Your task to perform on an android device: turn on airplane mode Image 0: 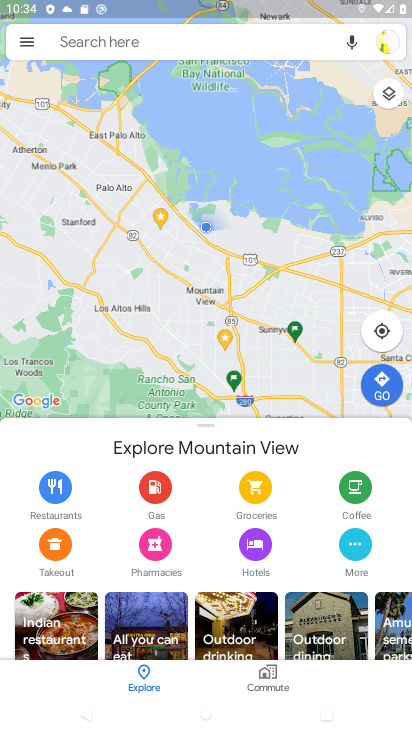
Step 0: press home button
Your task to perform on an android device: turn on airplane mode Image 1: 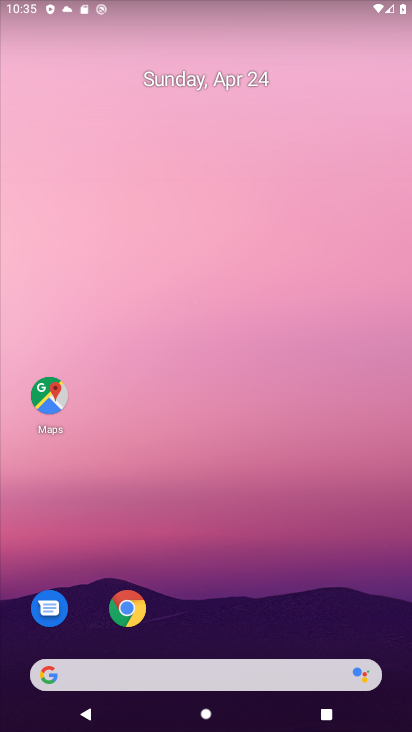
Step 1: drag from (204, 14) to (327, 725)
Your task to perform on an android device: turn on airplane mode Image 2: 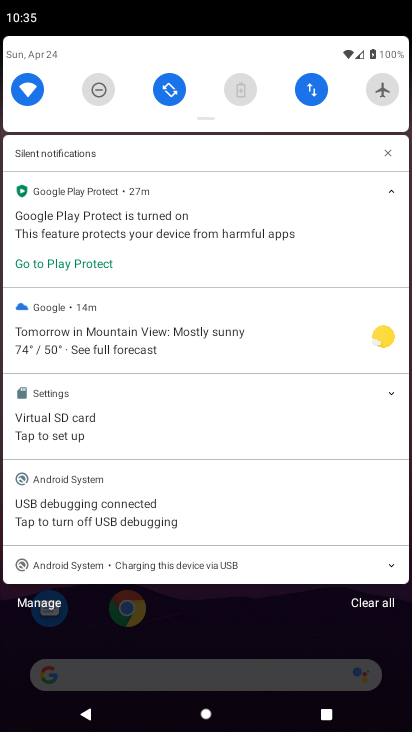
Step 2: click (382, 78)
Your task to perform on an android device: turn on airplane mode Image 3: 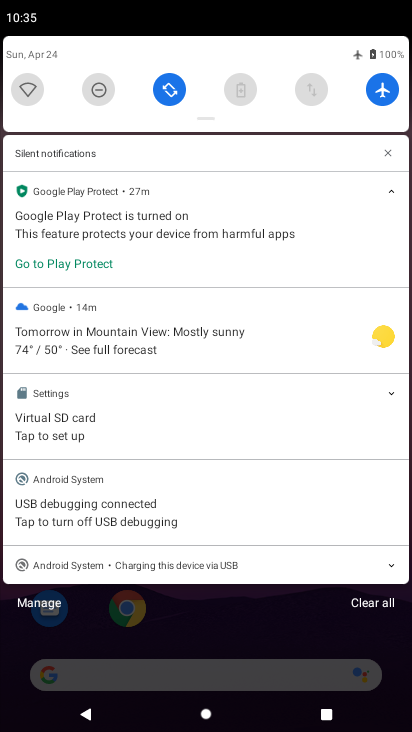
Step 3: task complete